Your task to perform on an android device: install app "Adobe Express: Graphic Design" Image 0: 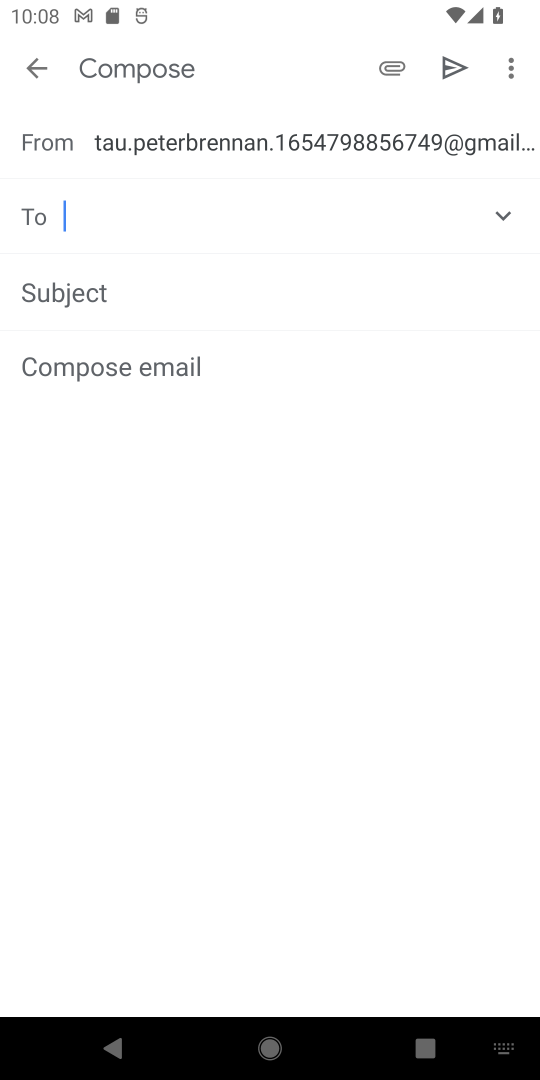
Step 0: press home button
Your task to perform on an android device: install app "Adobe Express: Graphic Design" Image 1: 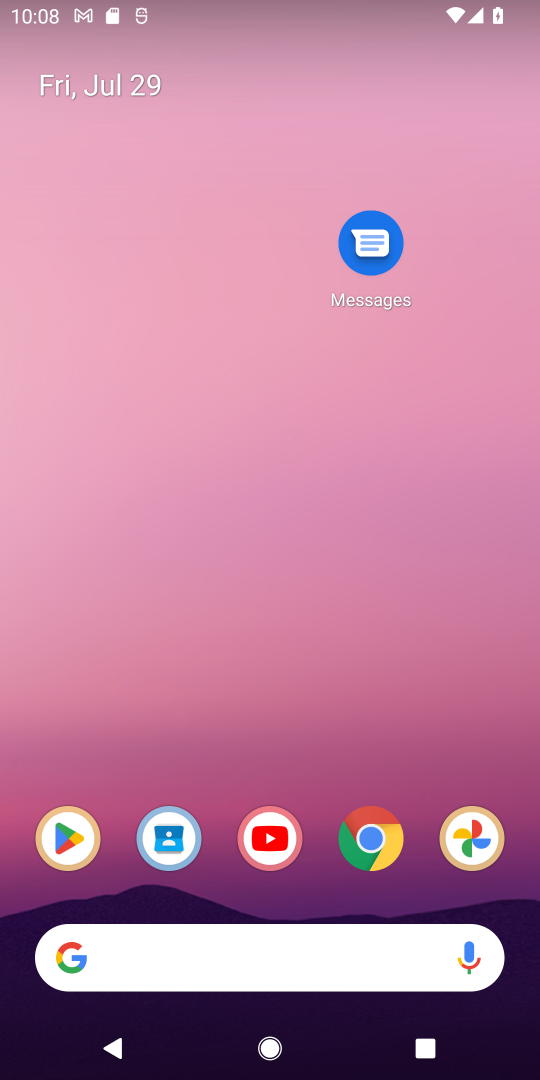
Step 1: click (68, 826)
Your task to perform on an android device: install app "Adobe Express: Graphic Design" Image 2: 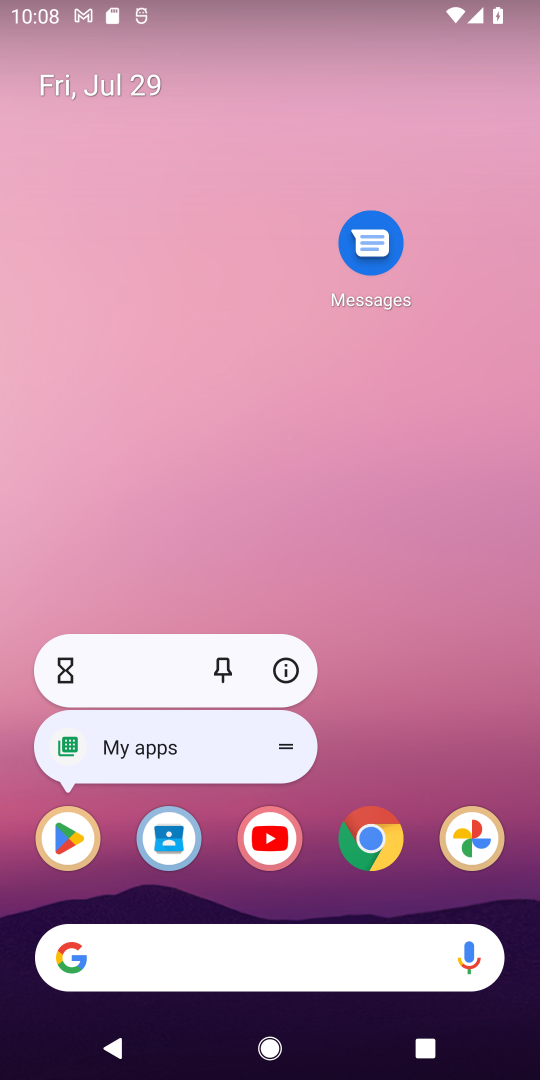
Step 2: click (53, 819)
Your task to perform on an android device: install app "Adobe Express: Graphic Design" Image 3: 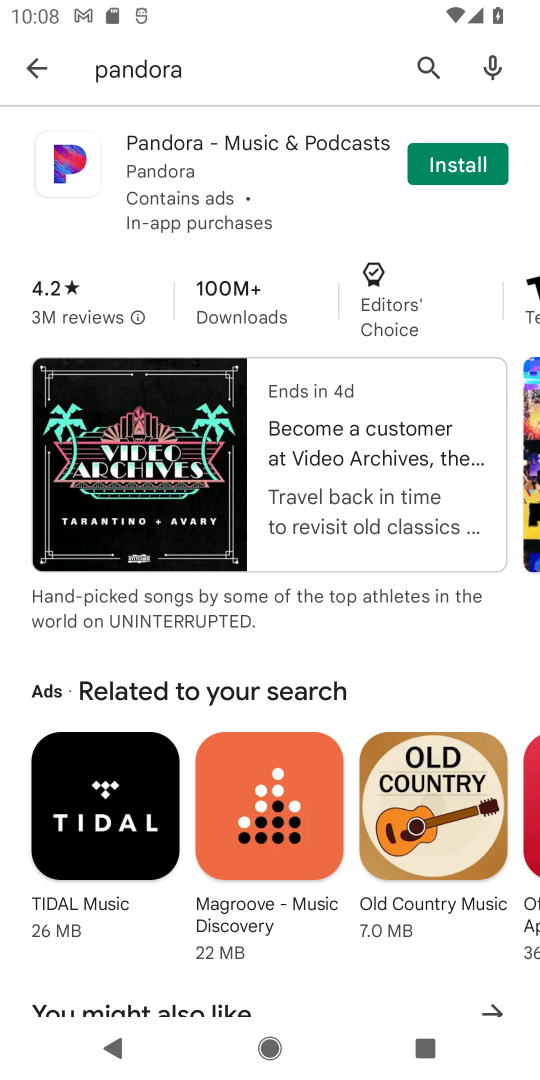
Step 3: click (290, 82)
Your task to perform on an android device: install app "Adobe Express: Graphic Design" Image 4: 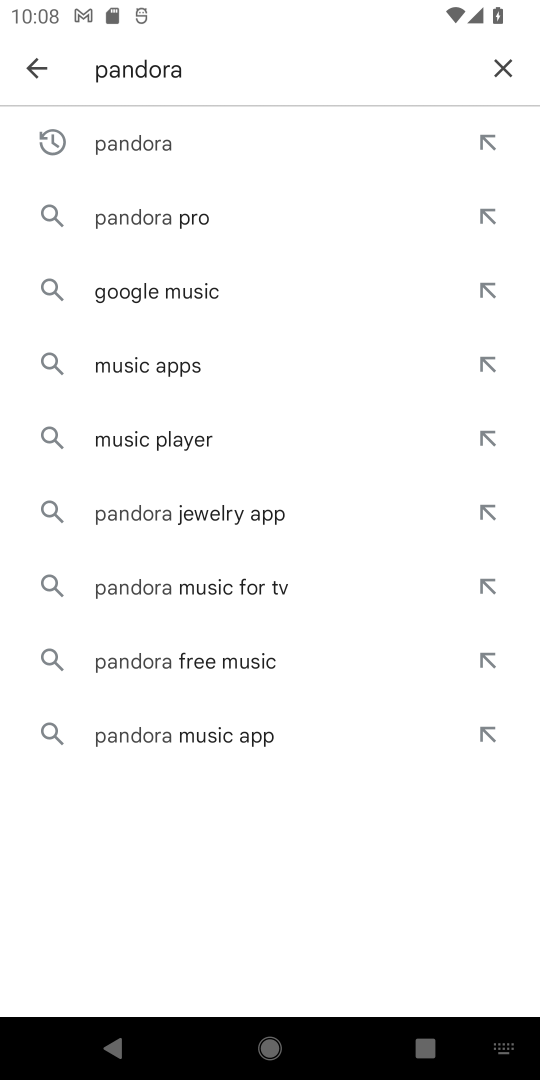
Step 4: click (503, 54)
Your task to perform on an android device: install app "Adobe Express: Graphic Design" Image 5: 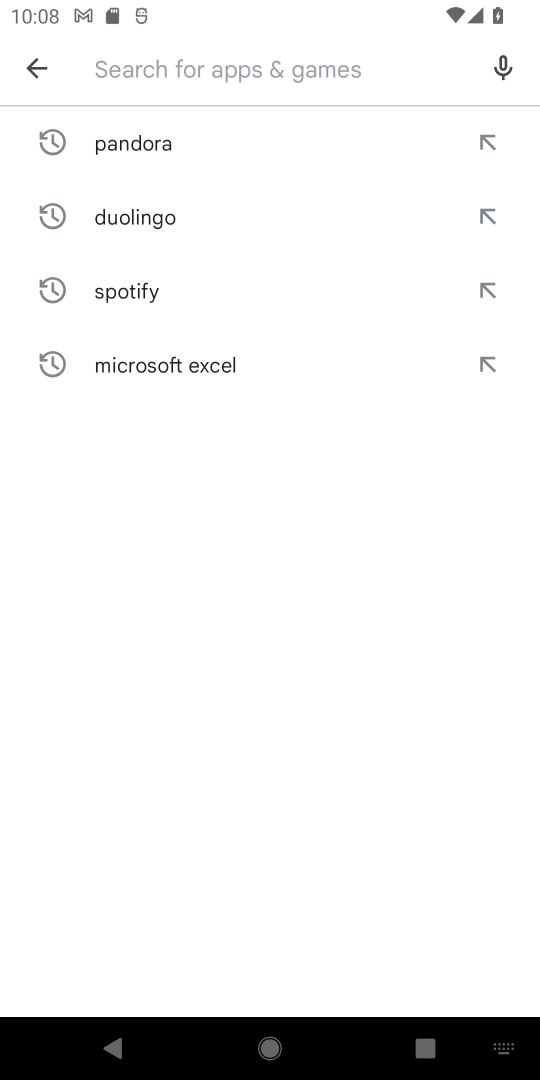
Step 5: type "Adobe Express"
Your task to perform on an android device: install app "Adobe Express: Graphic Design" Image 6: 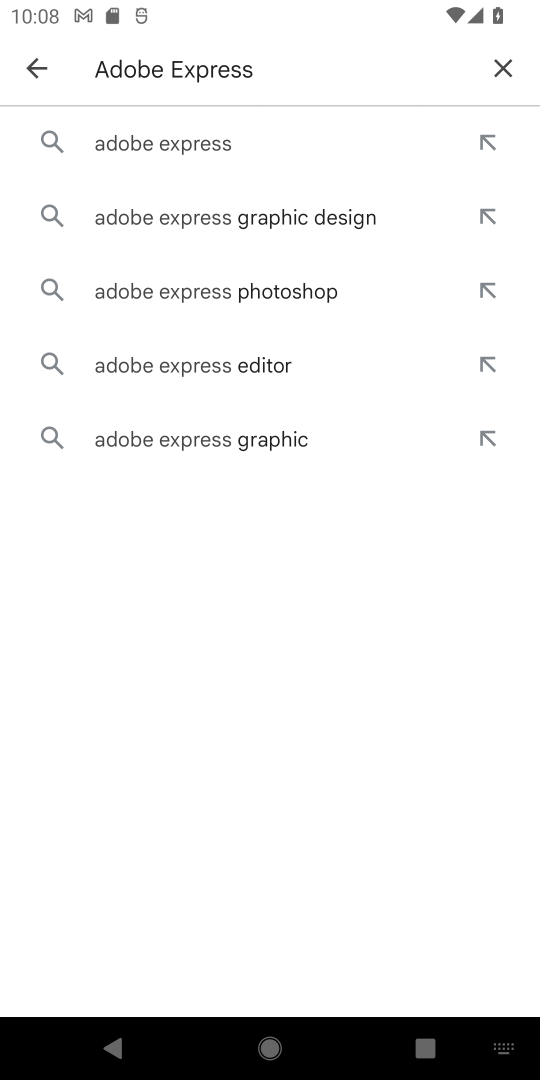
Step 6: click (217, 157)
Your task to perform on an android device: install app "Adobe Express: Graphic Design" Image 7: 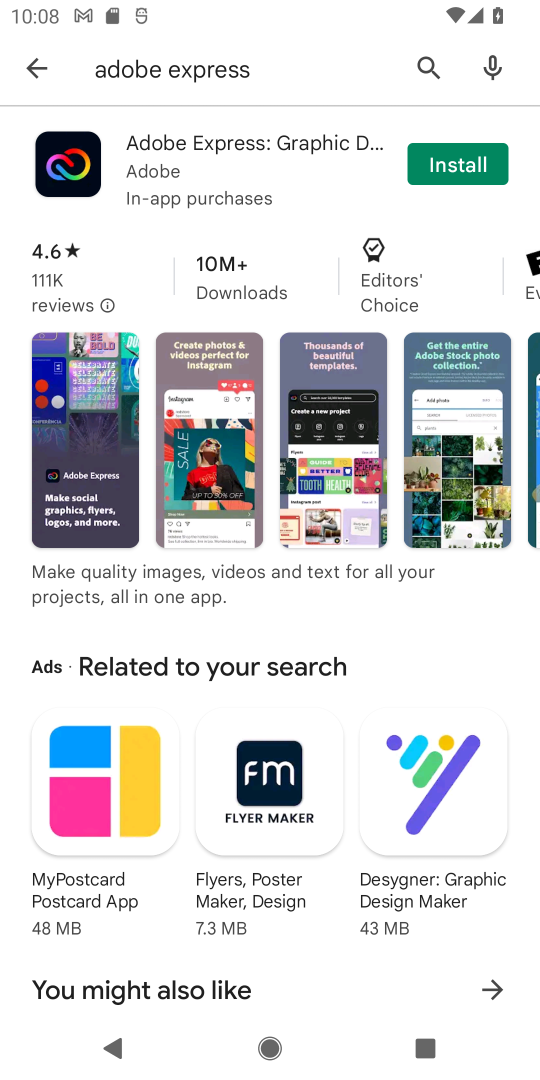
Step 7: click (432, 180)
Your task to perform on an android device: install app "Adobe Express: Graphic Design" Image 8: 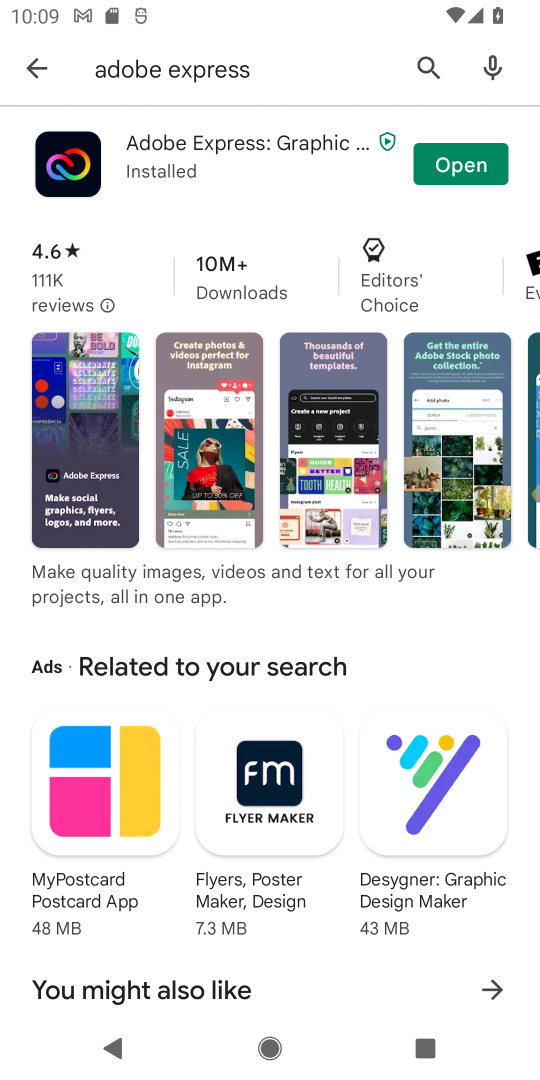
Step 8: task complete